Your task to perform on an android device: Open Youtube and go to "Your channel" Image 0: 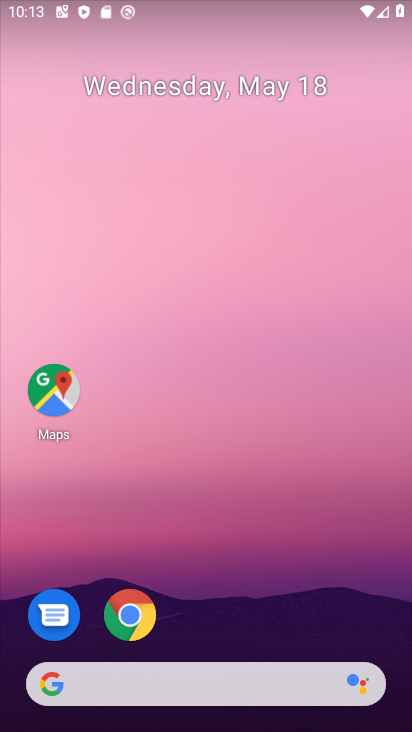
Step 0: drag from (233, 621) to (248, 58)
Your task to perform on an android device: Open Youtube and go to "Your channel" Image 1: 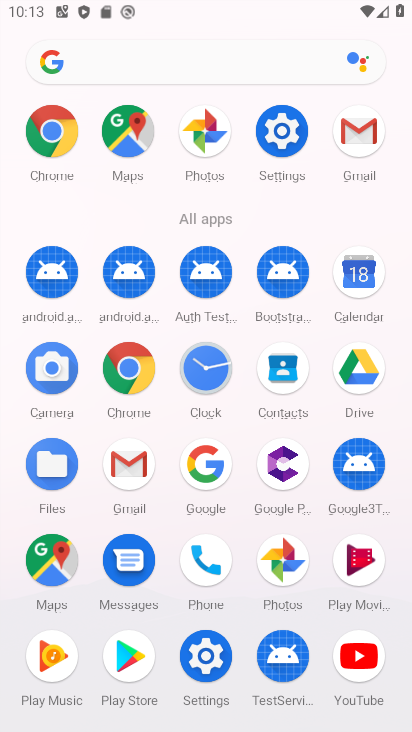
Step 1: click (374, 660)
Your task to perform on an android device: Open Youtube and go to "Your channel" Image 2: 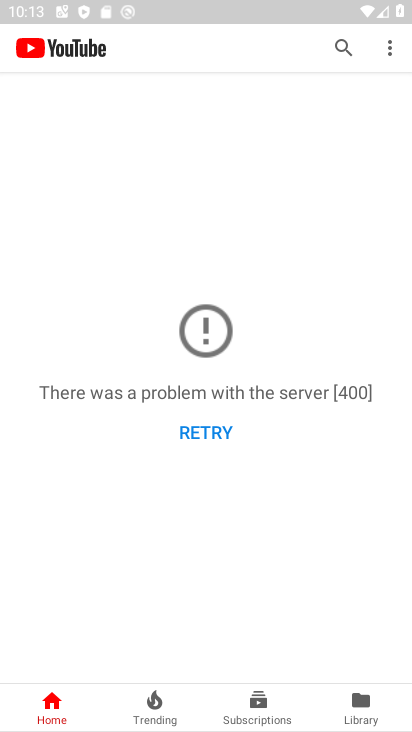
Step 2: click (343, 51)
Your task to perform on an android device: Open Youtube and go to "Your channel" Image 3: 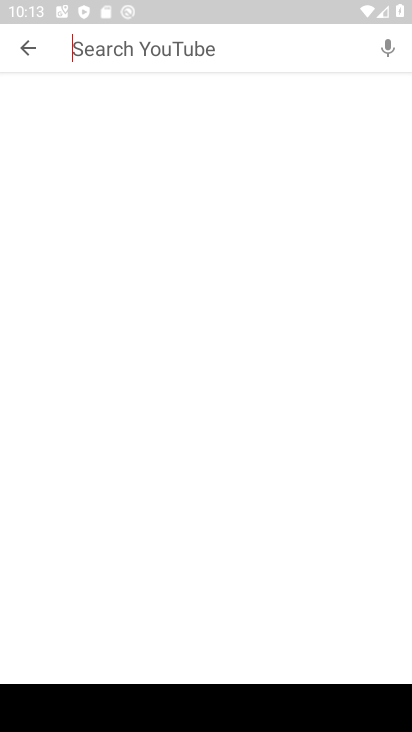
Step 3: type "your channel"
Your task to perform on an android device: Open Youtube and go to "Your channel" Image 4: 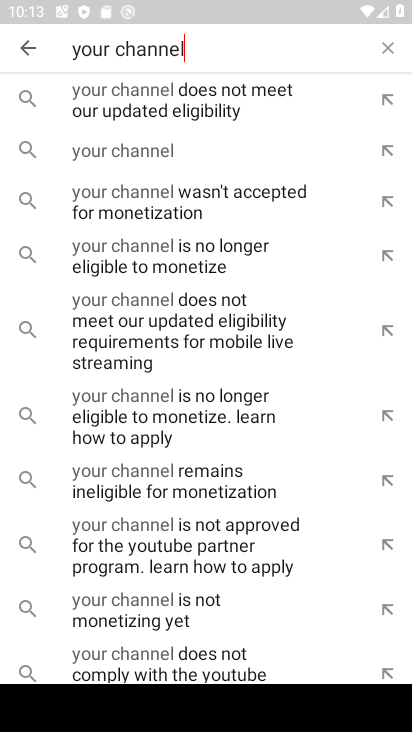
Step 4: click (195, 160)
Your task to perform on an android device: Open Youtube and go to "Your channel" Image 5: 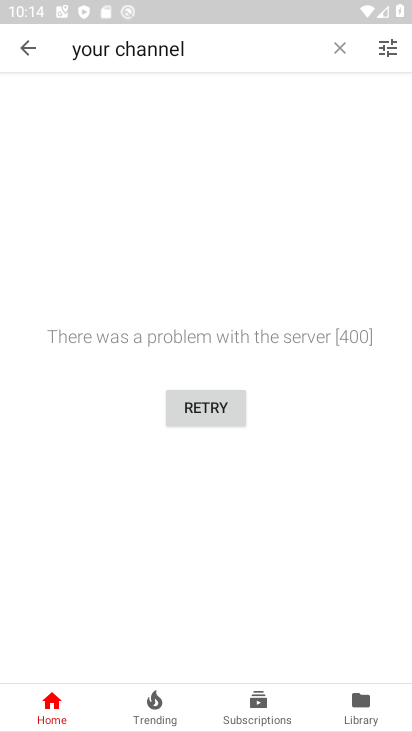
Step 5: task complete